Your task to perform on an android device: delete browsing data in the chrome app Image 0: 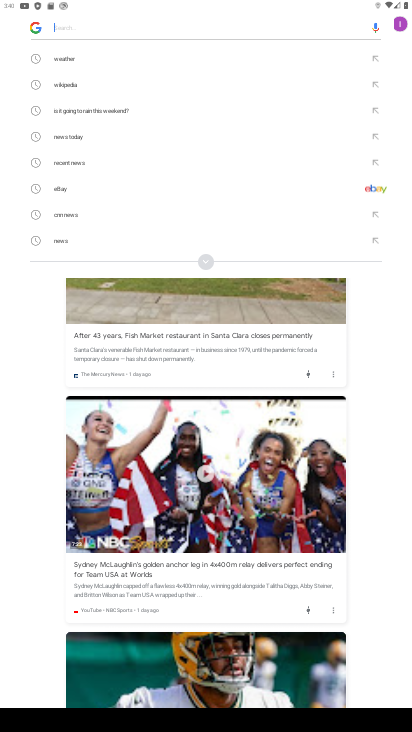
Step 0: press home button
Your task to perform on an android device: delete browsing data in the chrome app Image 1: 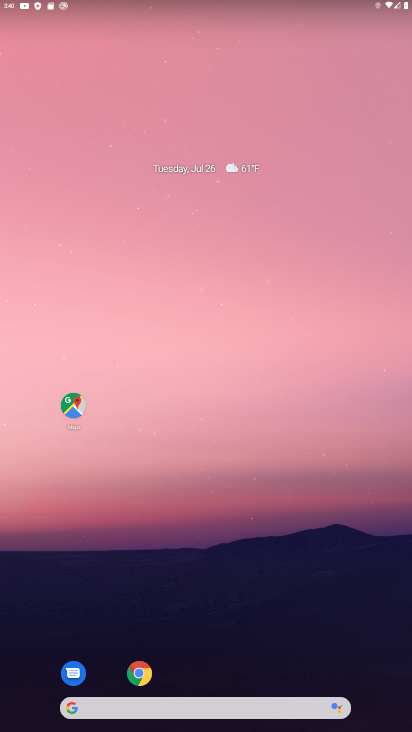
Step 1: drag from (212, 674) to (284, 97)
Your task to perform on an android device: delete browsing data in the chrome app Image 2: 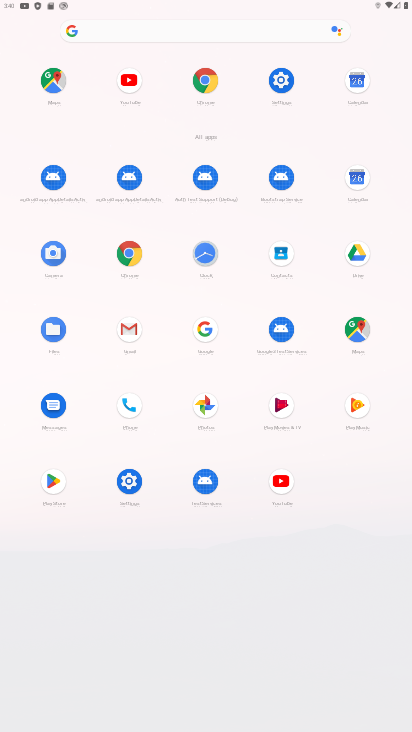
Step 2: click (123, 480)
Your task to perform on an android device: delete browsing data in the chrome app Image 3: 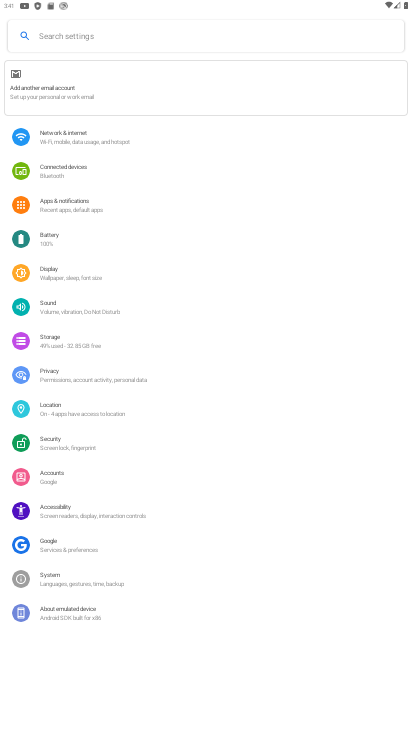
Step 3: press home button
Your task to perform on an android device: delete browsing data in the chrome app Image 4: 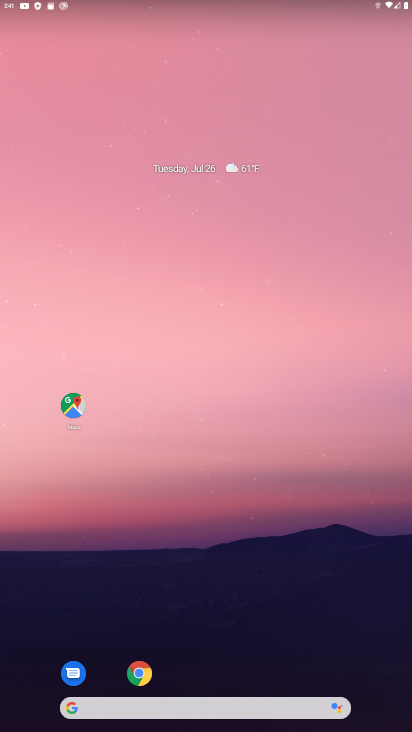
Step 4: click (139, 671)
Your task to perform on an android device: delete browsing data in the chrome app Image 5: 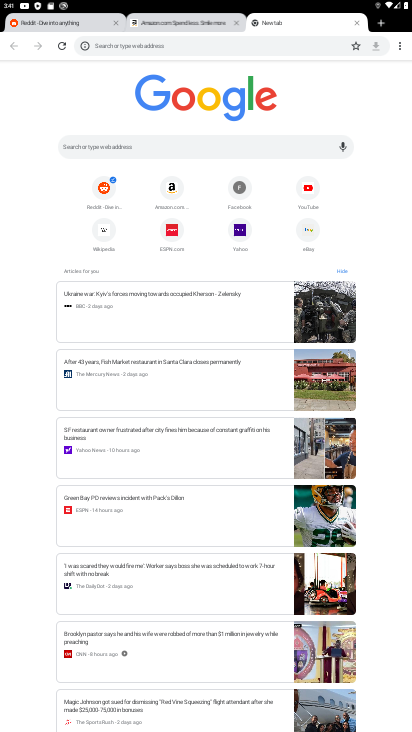
Step 5: click (397, 43)
Your task to perform on an android device: delete browsing data in the chrome app Image 6: 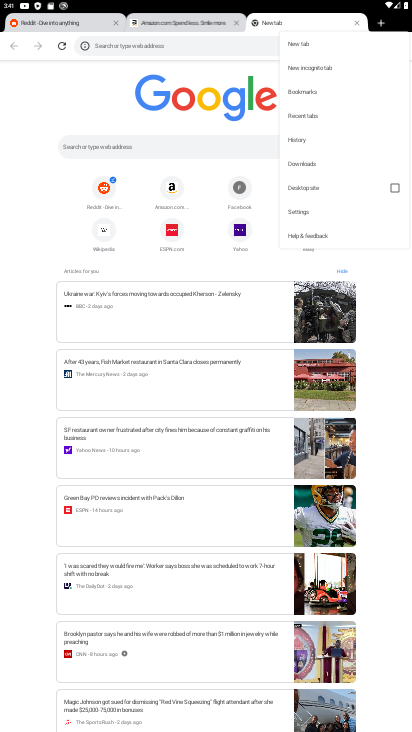
Step 6: click (313, 139)
Your task to perform on an android device: delete browsing data in the chrome app Image 7: 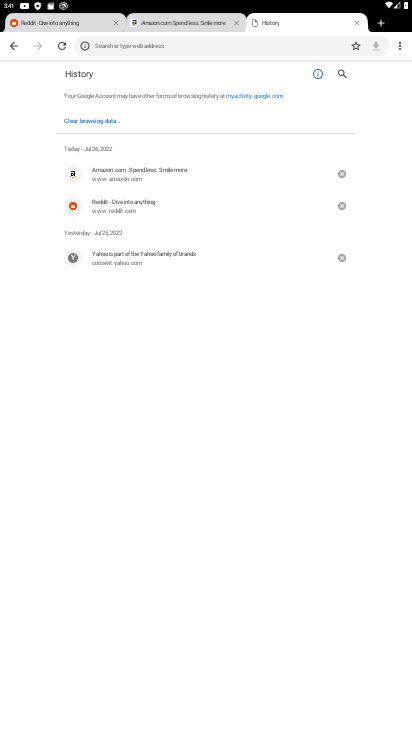
Step 7: click (87, 117)
Your task to perform on an android device: delete browsing data in the chrome app Image 8: 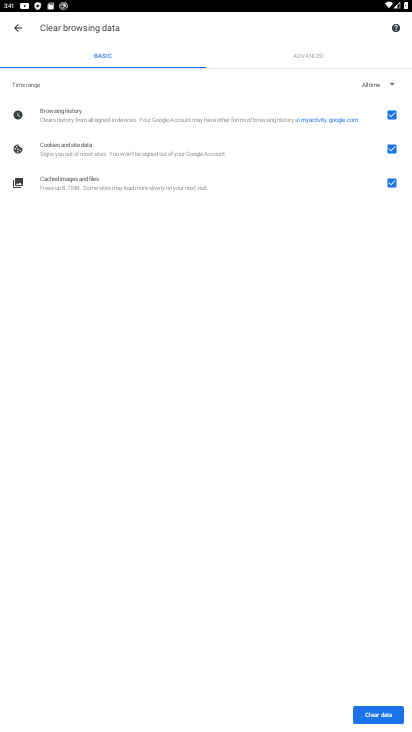
Step 8: click (389, 180)
Your task to perform on an android device: delete browsing data in the chrome app Image 9: 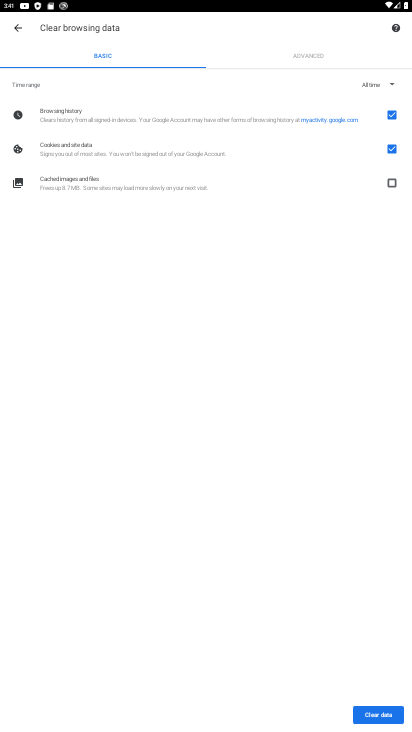
Step 9: click (391, 147)
Your task to perform on an android device: delete browsing data in the chrome app Image 10: 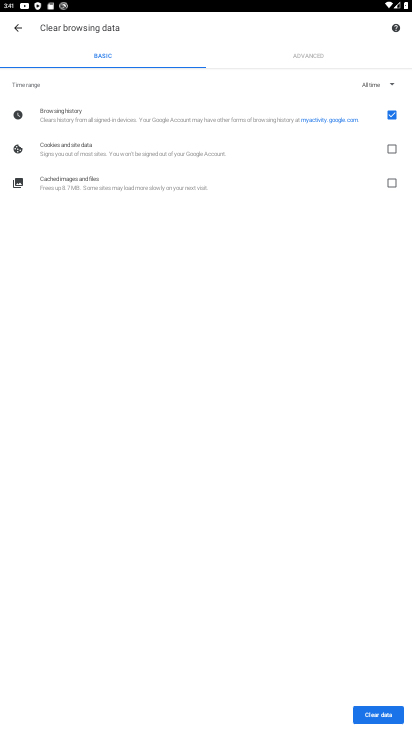
Step 10: click (377, 711)
Your task to perform on an android device: delete browsing data in the chrome app Image 11: 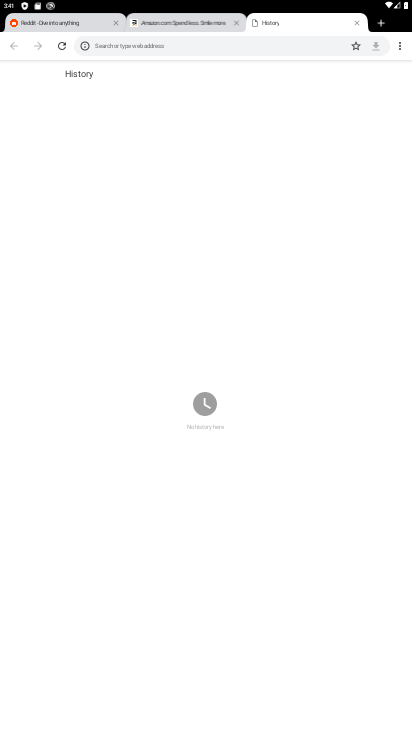
Step 11: task complete